Your task to perform on an android device: set the timer Image 0: 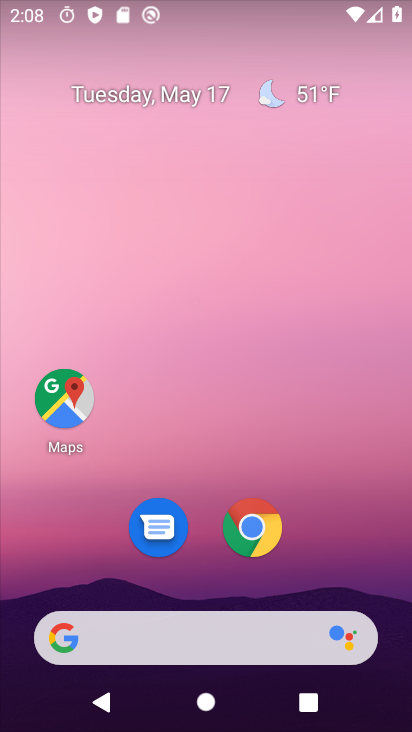
Step 0: drag from (347, 525) to (273, 138)
Your task to perform on an android device: set the timer Image 1: 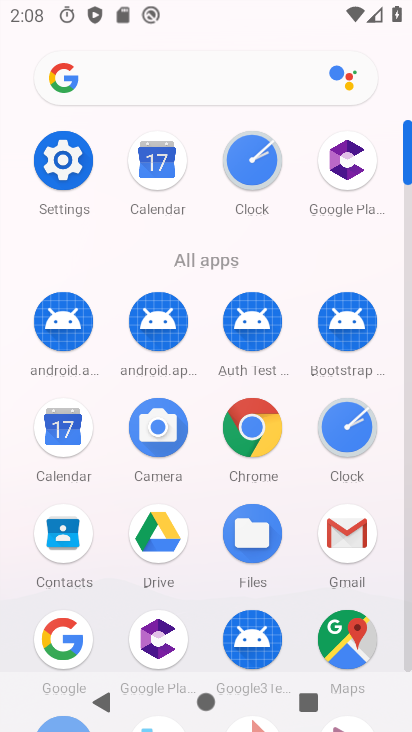
Step 1: click (345, 426)
Your task to perform on an android device: set the timer Image 2: 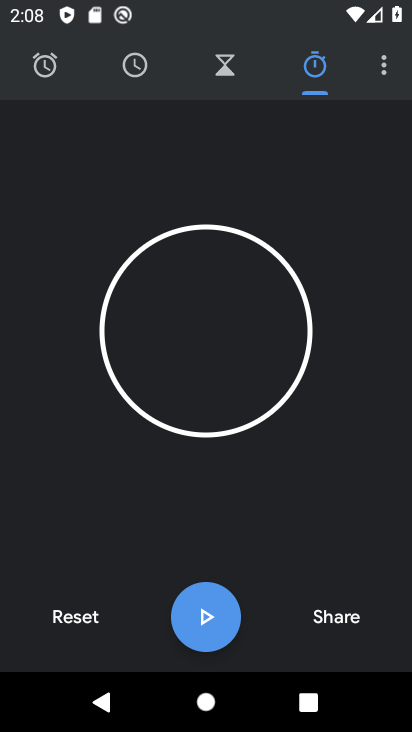
Step 2: click (80, 619)
Your task to perform on an android device: set the timer Image 3: 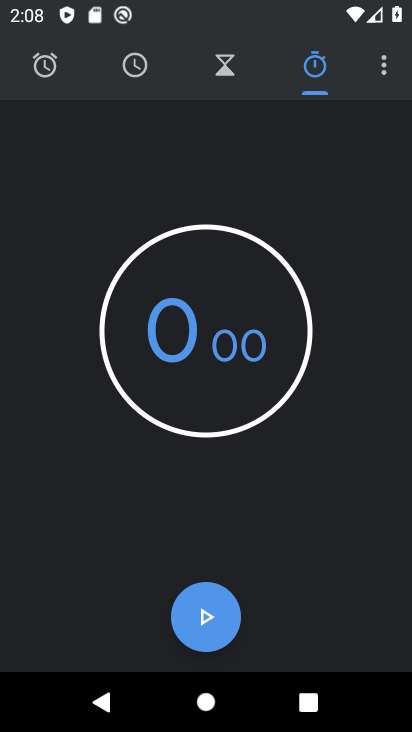
Step 3: click (226, 67)
Your task to perform on an android device: set the timer Image 4: 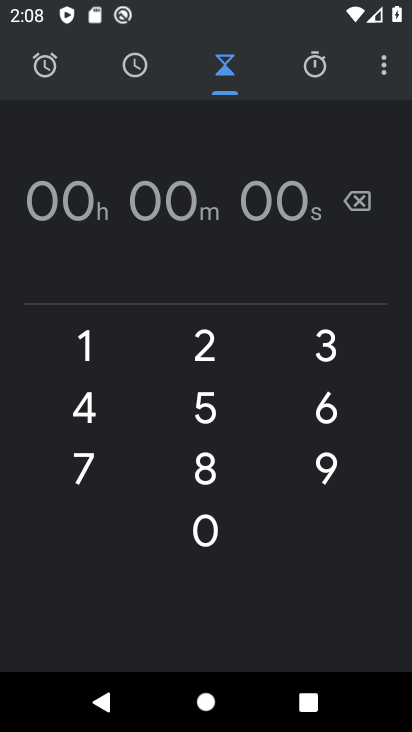
Step 4: type "123"
Your task to perform on an android device: set the timer Image 5: 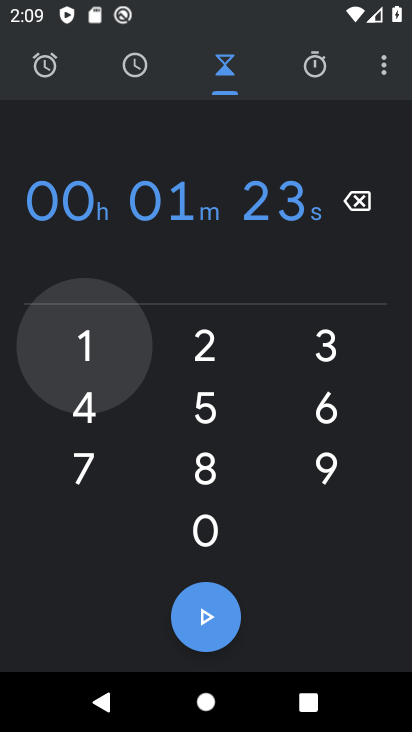
Step 5: click (207, 623)
Your task to perform on an android device: set the timer Image 6: 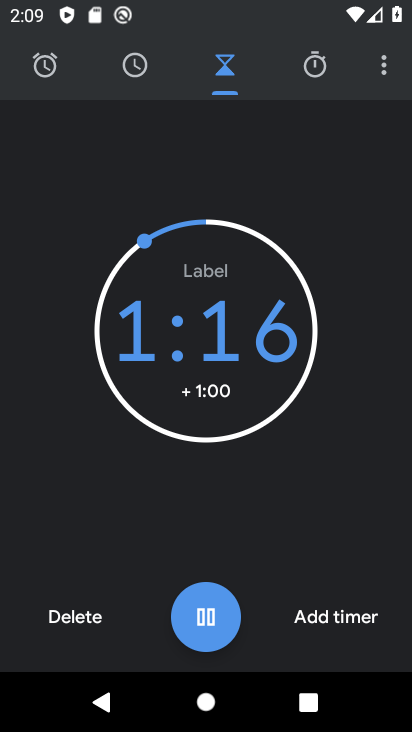
Step 6: click (207, 614)
Your task to perform on an android device: set the timer Image 7: 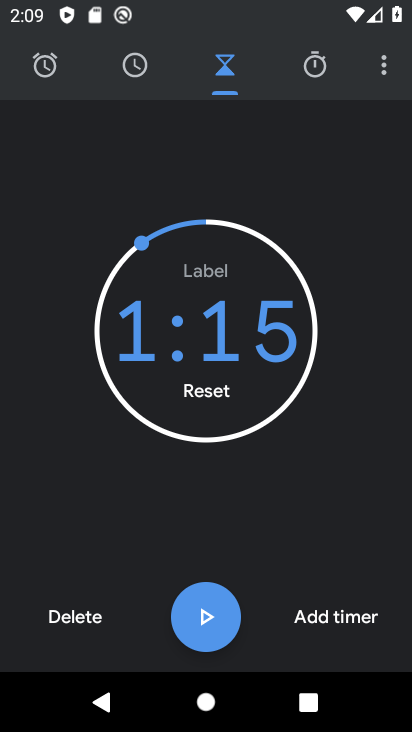
Step 7: task complete